Your task to perform on an android device: install app "VLC for Android" Image 0: 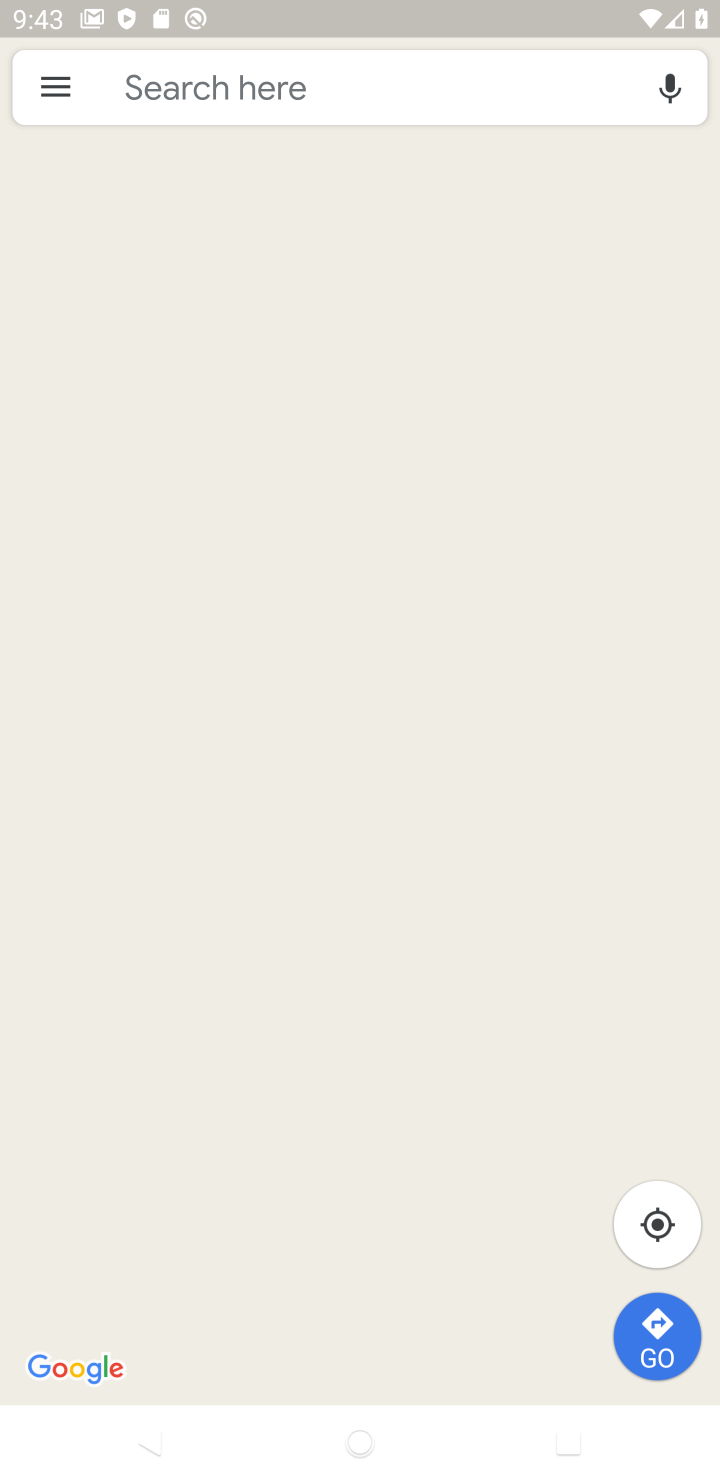
Step 0: press back button
Your task to perform on an android device: install app "VLC for Android" Image 1: 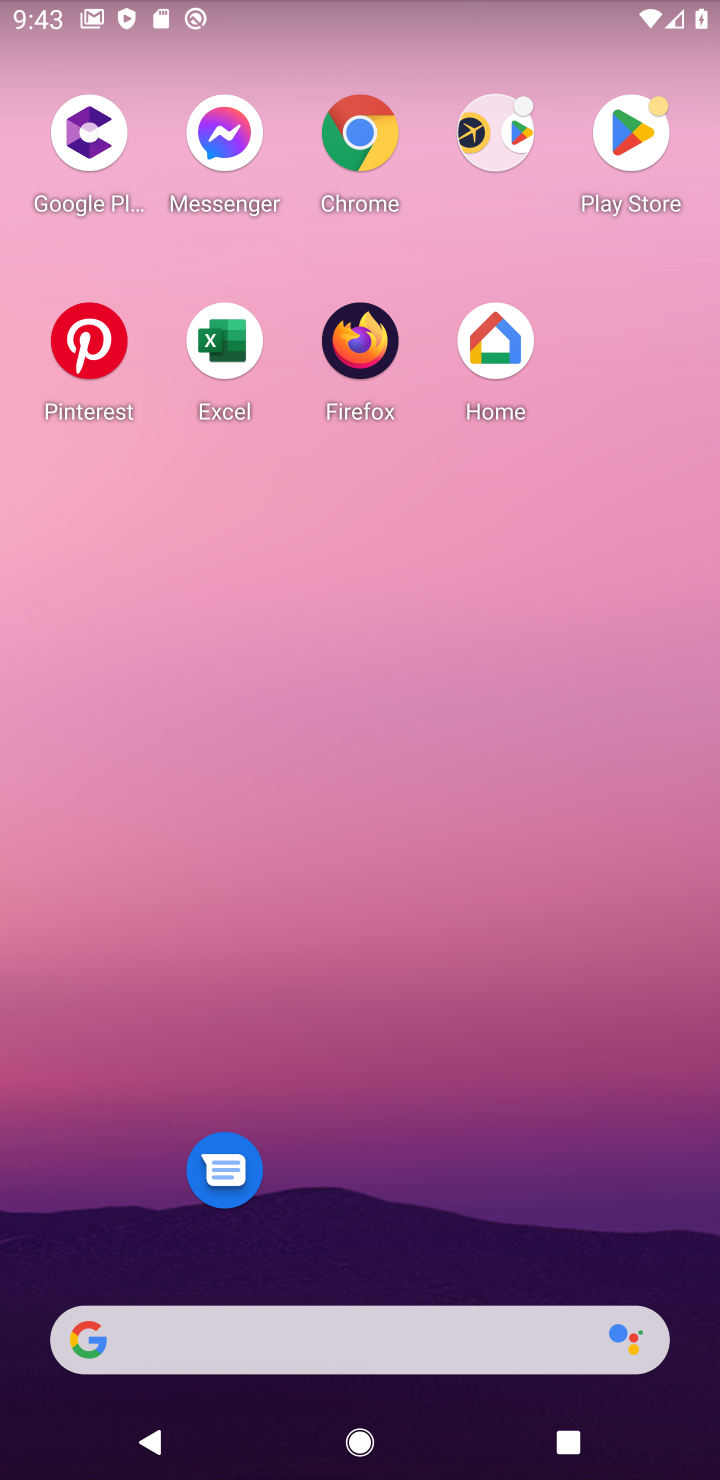
Step 1: press home button
Your task to perform on an android device: install app "VLC for Android" Image 2: 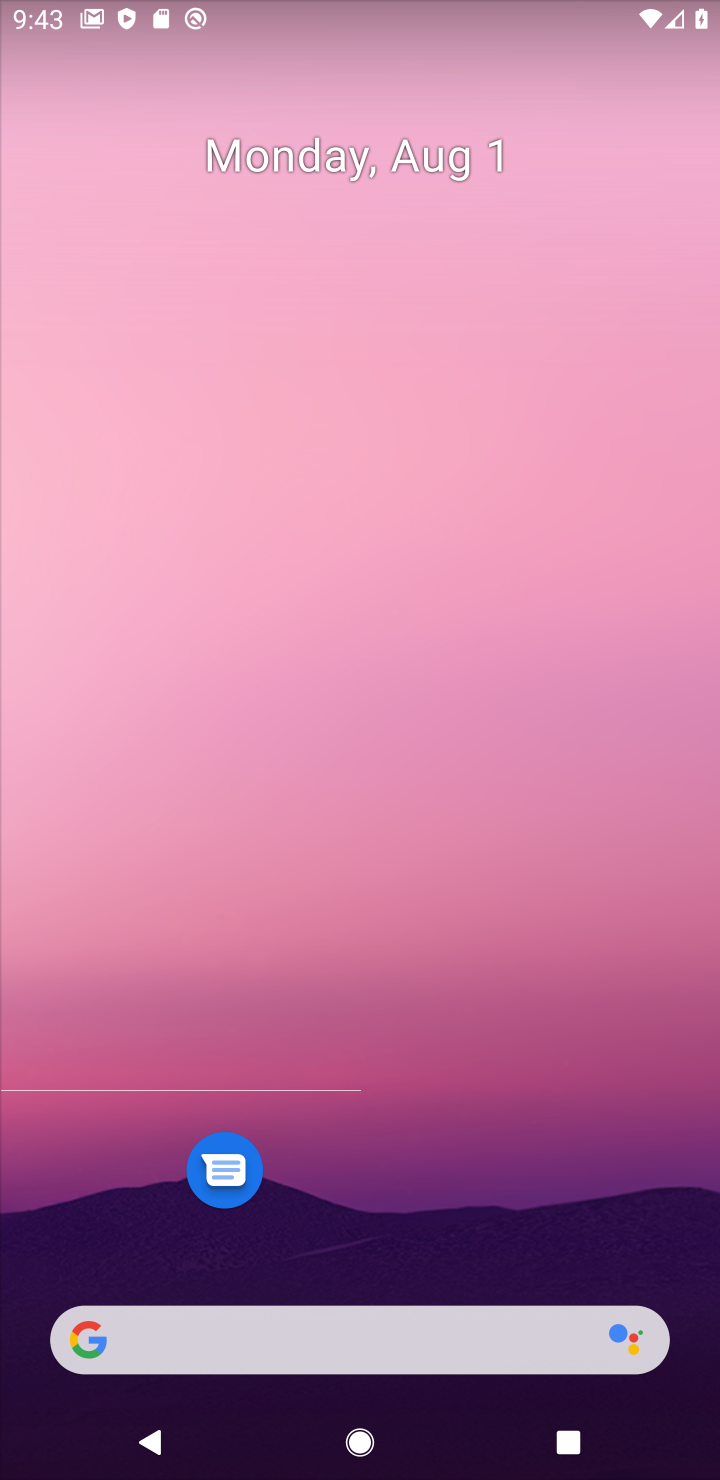
Step 2: drag from (395, 856) to (325, 611)
Your task to perform on an android device: install app "VLC for Android" Image 3: 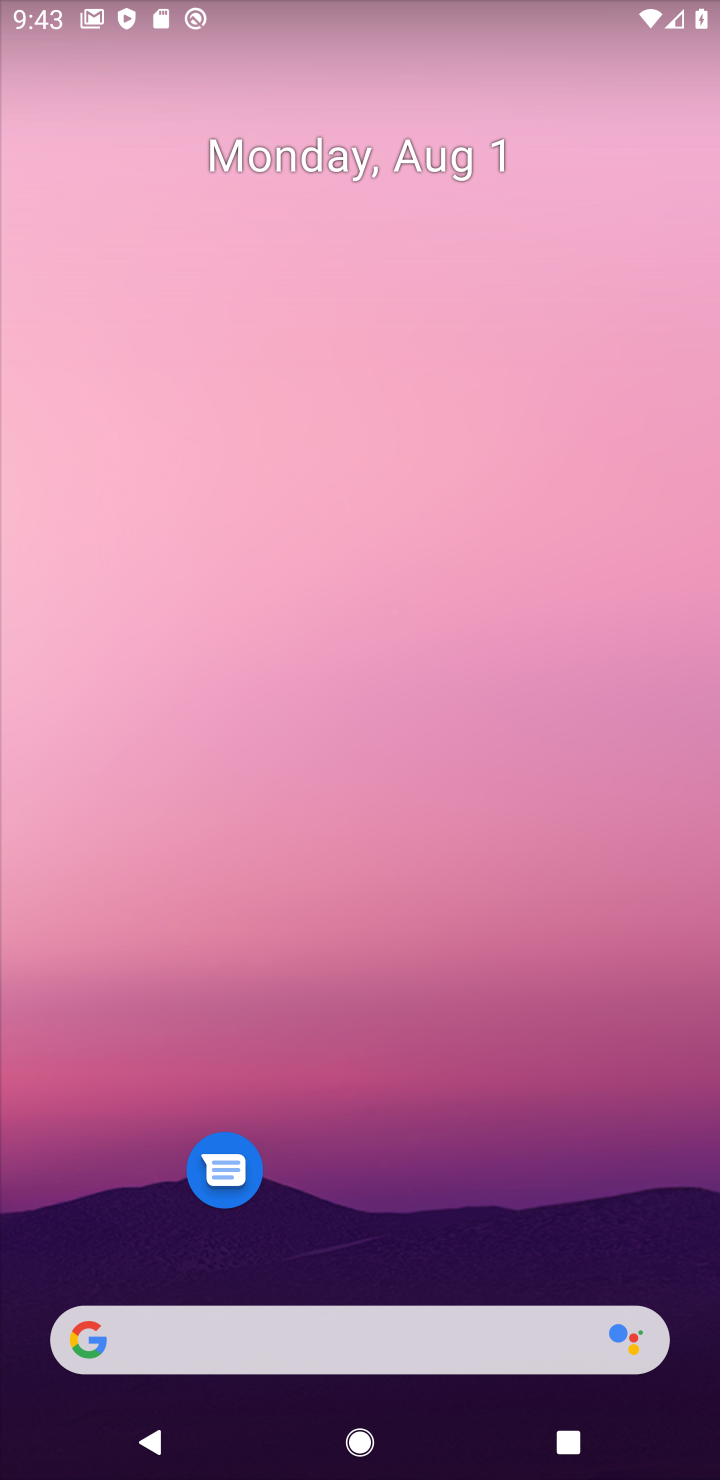
Step 3: click (304, 197)
Your task to perform on an android device: install app "VLC for Android" Image 4: 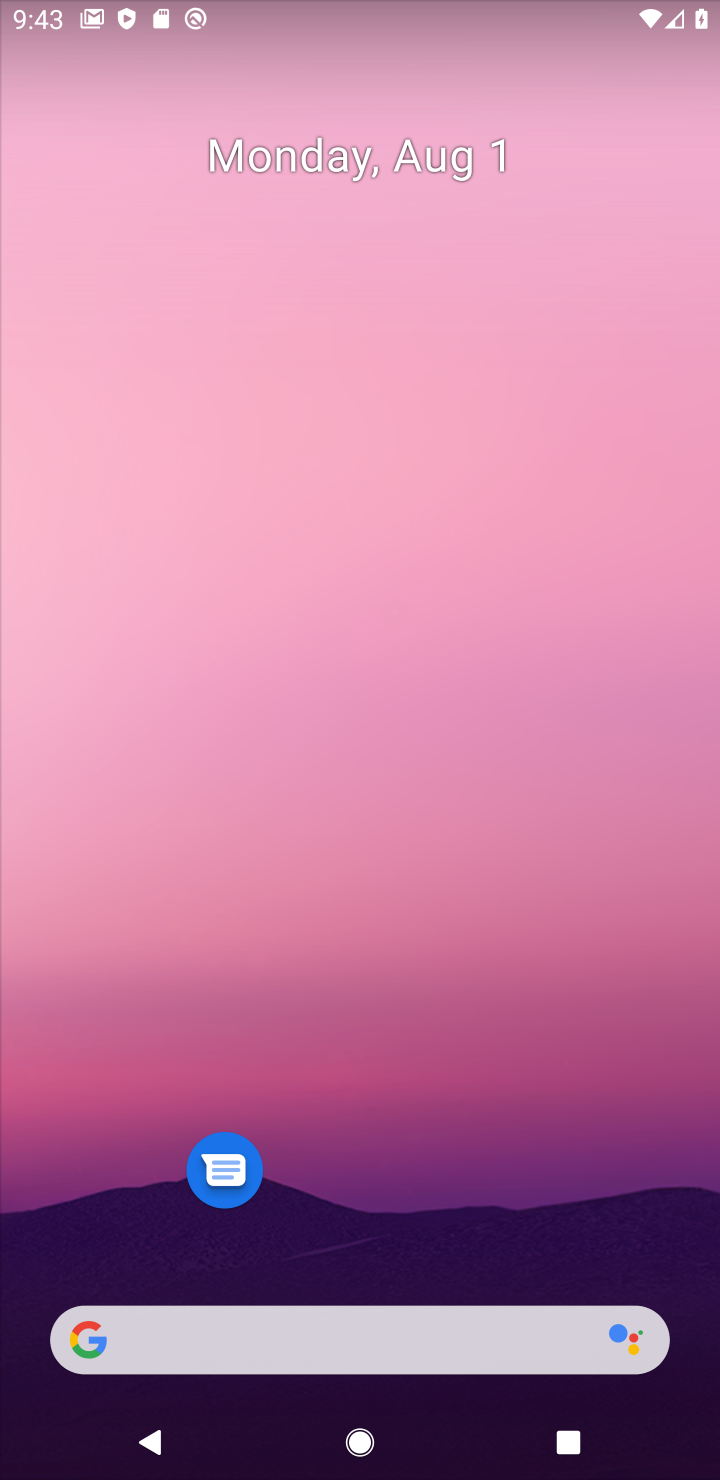
Step 4: drag from (384, 351) to (437, 817)
Your task to perform on an android device: install app "VLC for Android" Image 5: 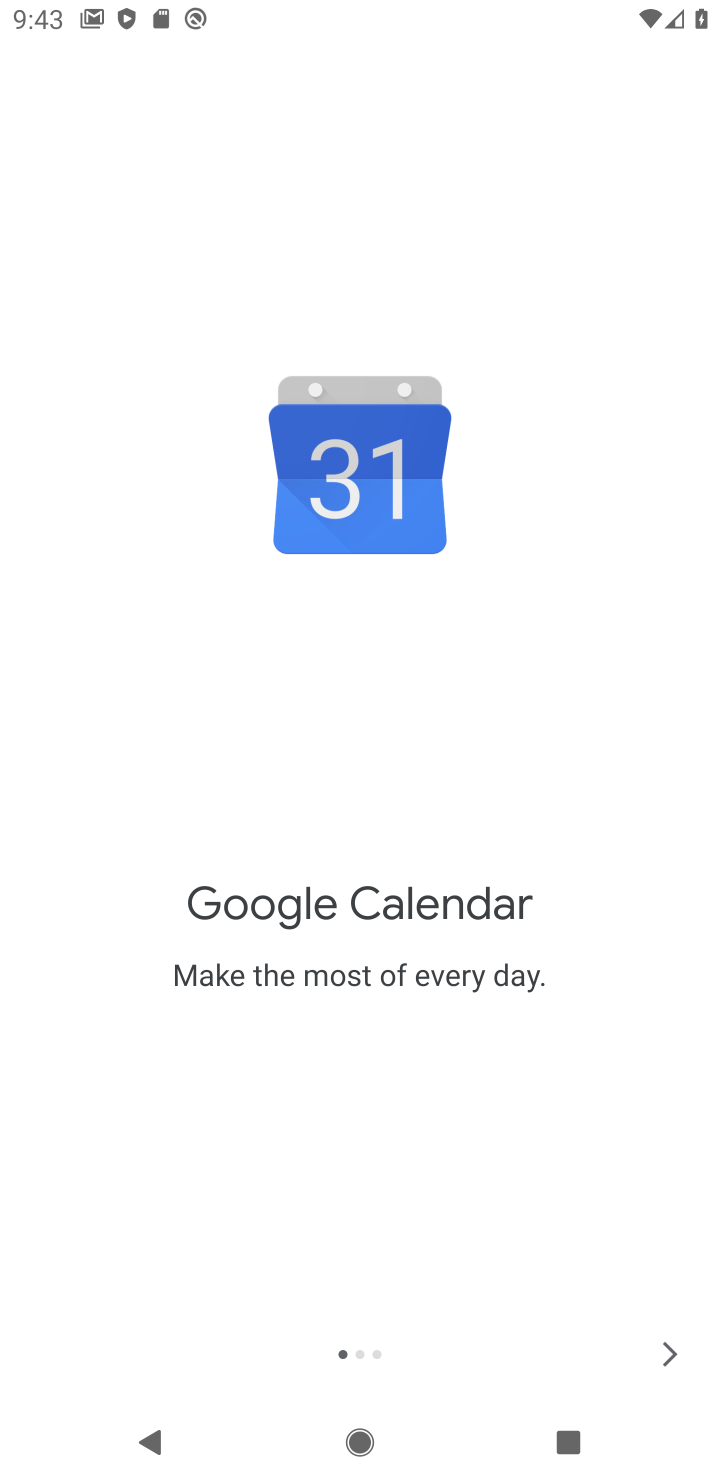
Step 5: press back button
Your task to perform on an android device: install app "VLC for Android" Image 6: 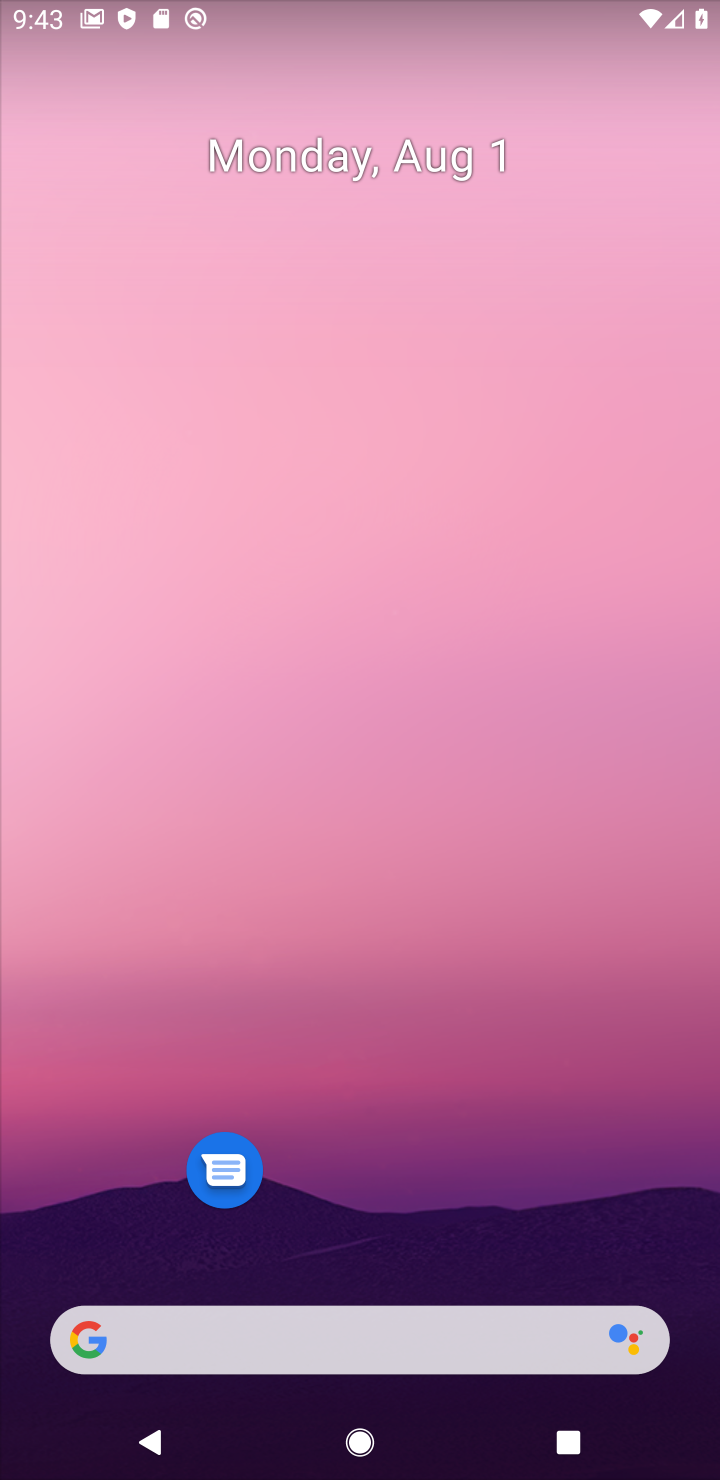
Step 6: drag from (330, 593) to (221, 142)
Your task to perform on an android device: install app "VLC for Android" Image 7: 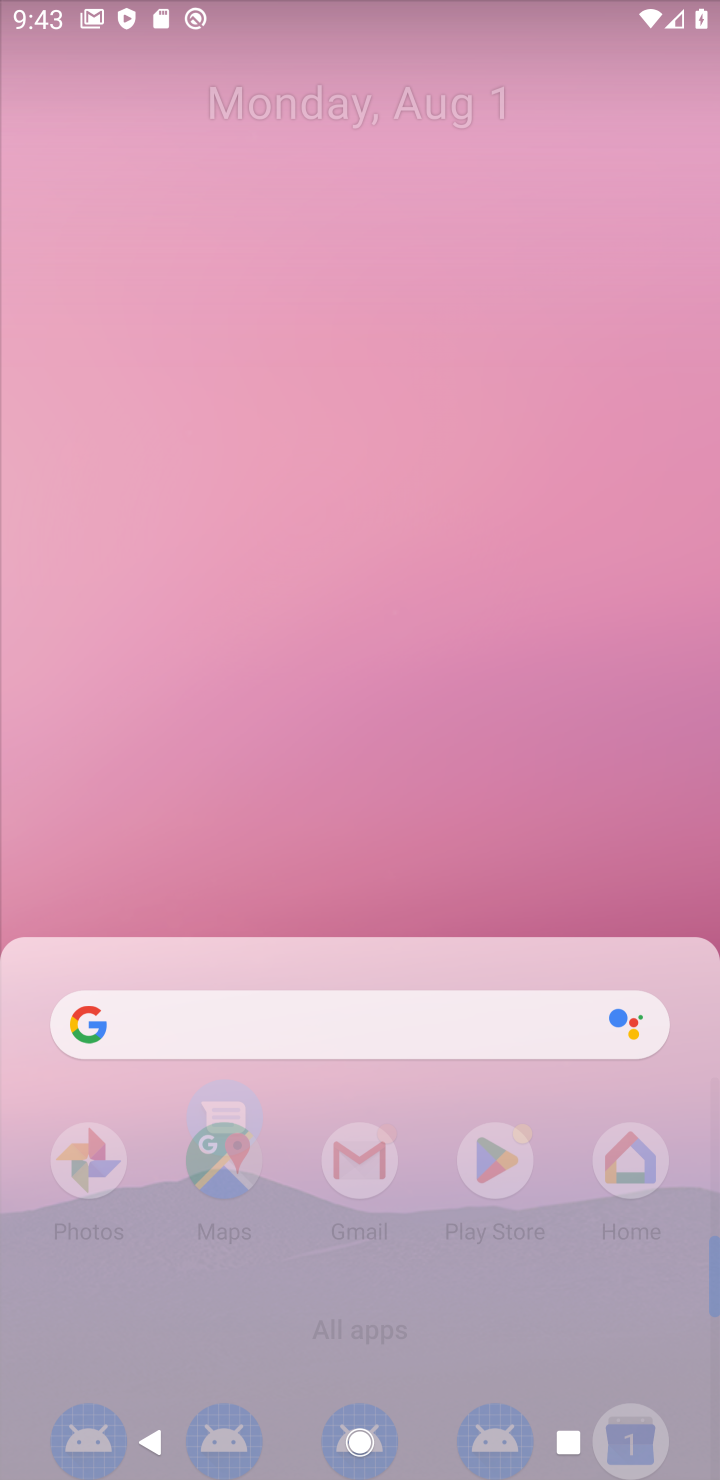
Step 7: drag from (225, 55) to (383, 142)
Your task to perform on an android device: install app "VLC for Android" Image 8: 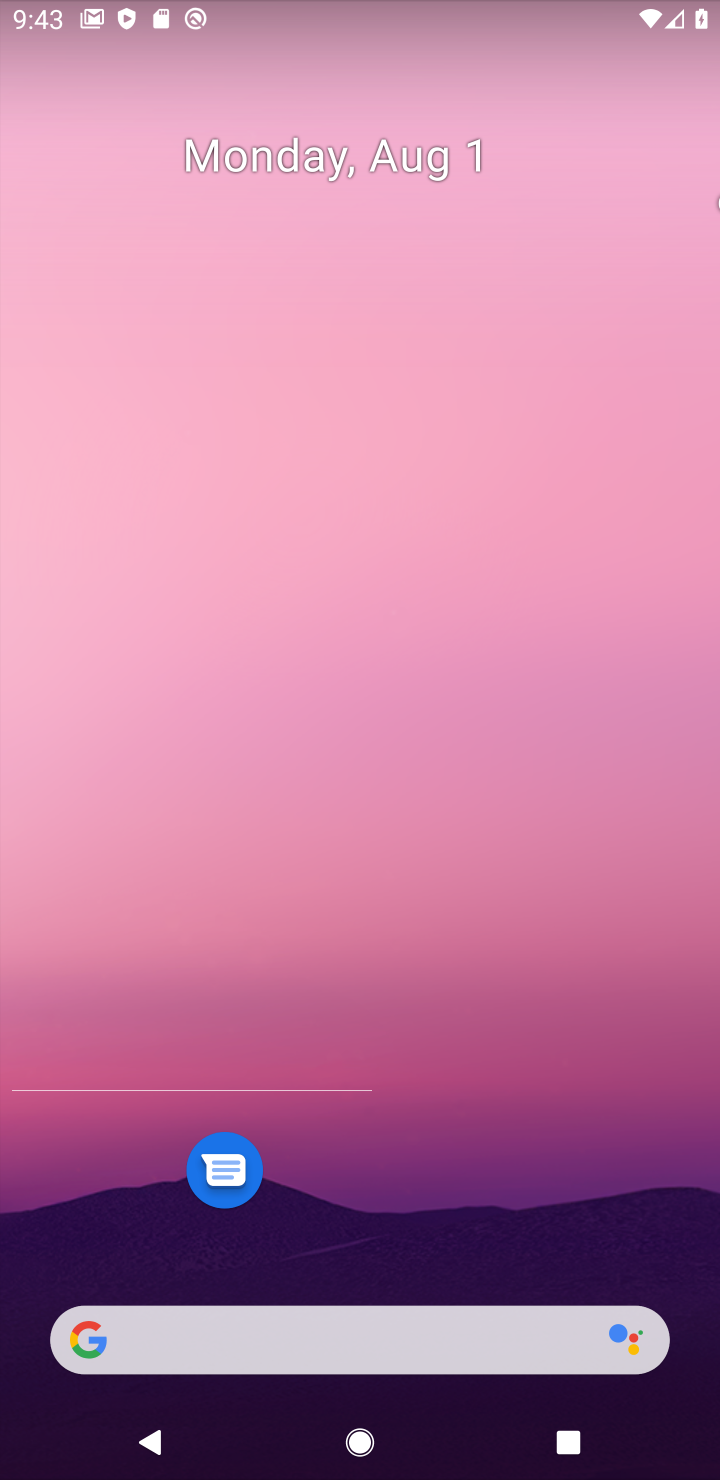
Step 8: drag from (206, 159) to (273, 212)
Your task to perform on an android device: install app "VLC for Android" Image 9: 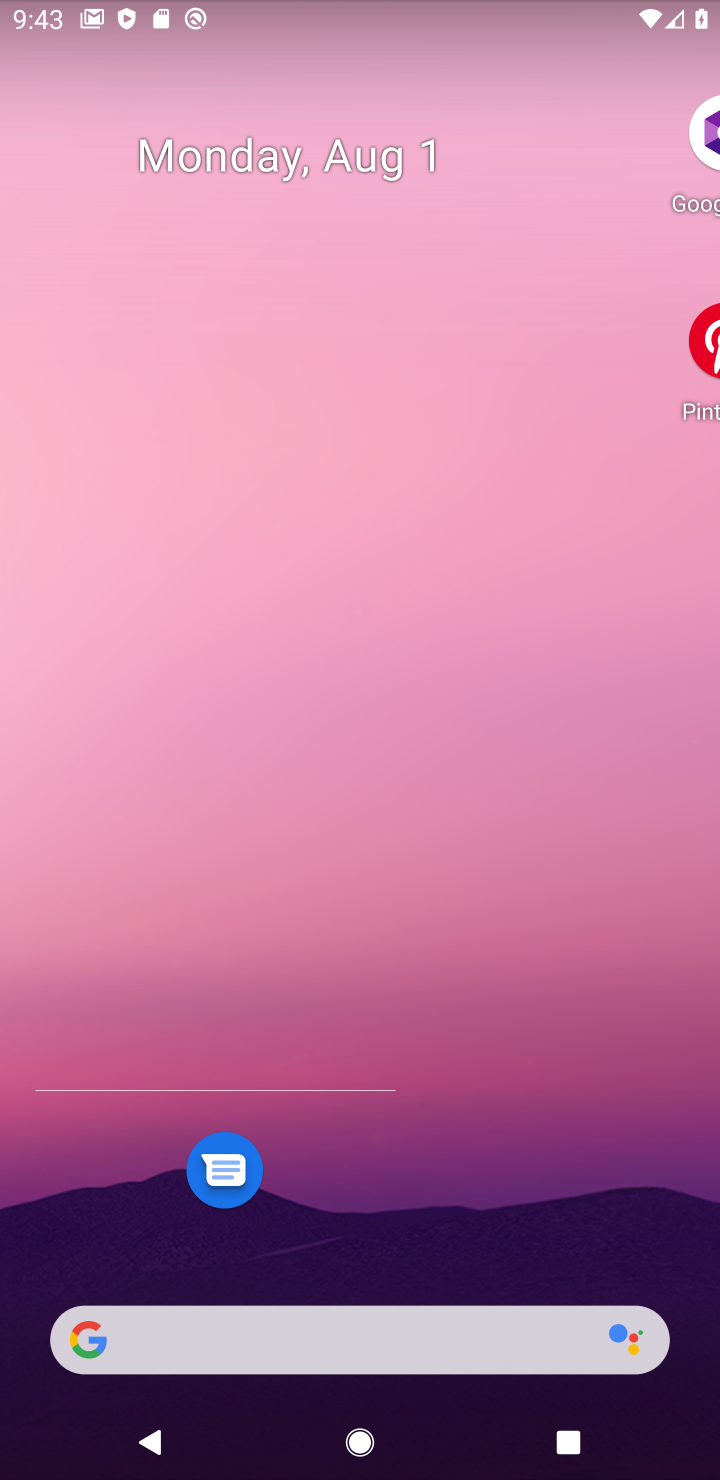
Step 9: drag from (310, 494) to (470, 147)
Your task to perform on an android device: install app "VLC for Android" Image 10: 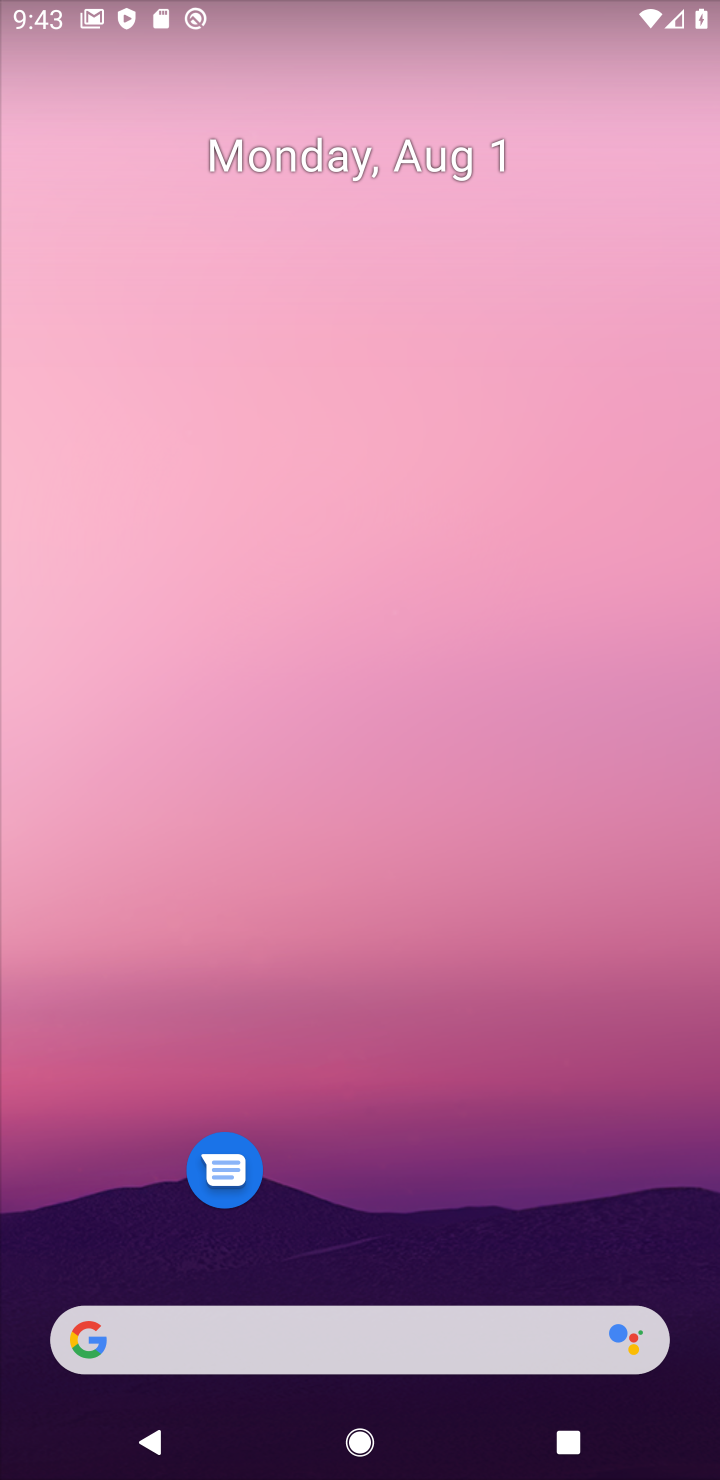
Step 10: click (267, 445)
Your task to perform on an android device: install app "VLC for Android" Image 11: 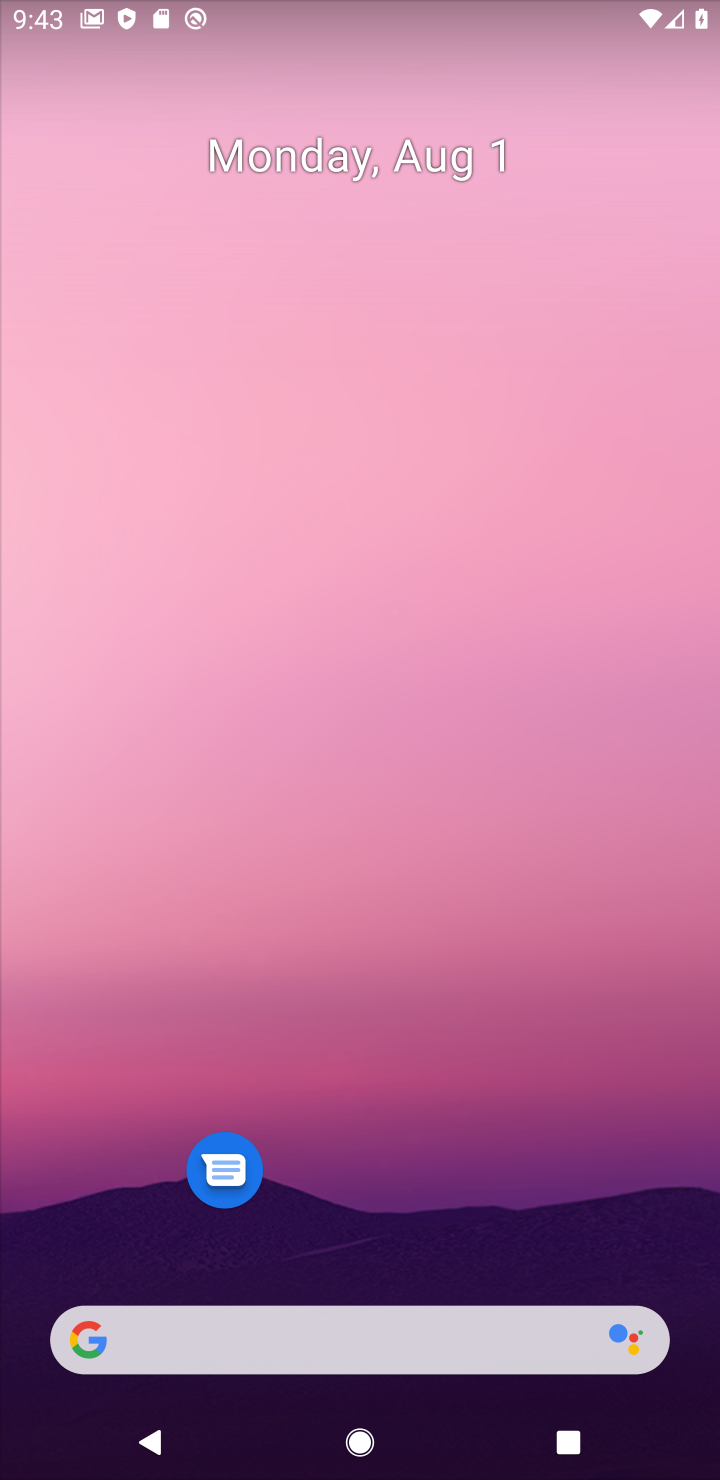
Step 11: drag from (423, 687) to (458, 603)
Your task to perform on an android device: install app "VLC for Android" Image 12: 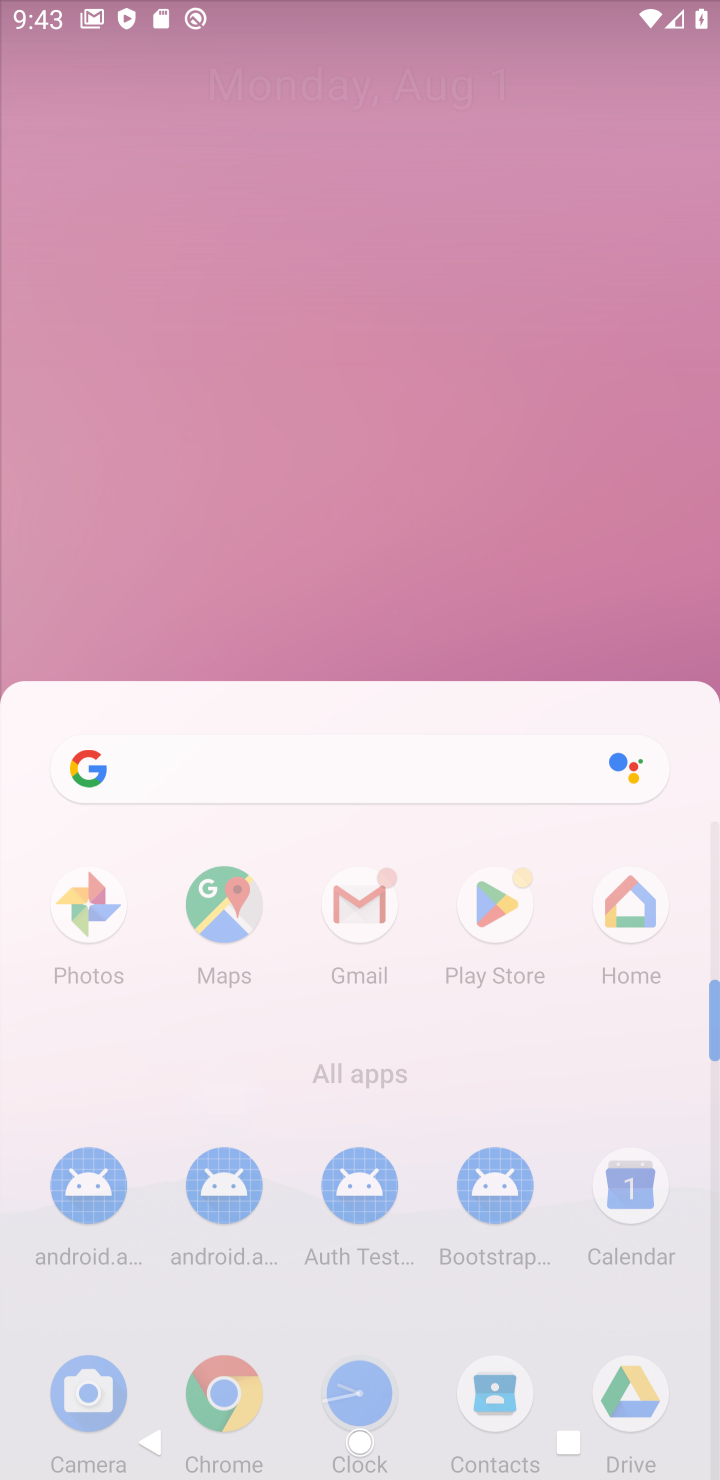
Step 12: drag from (460, 975) to (294, 346)
Your task to perform on an android device: install app "VLC for Android" Image 13: 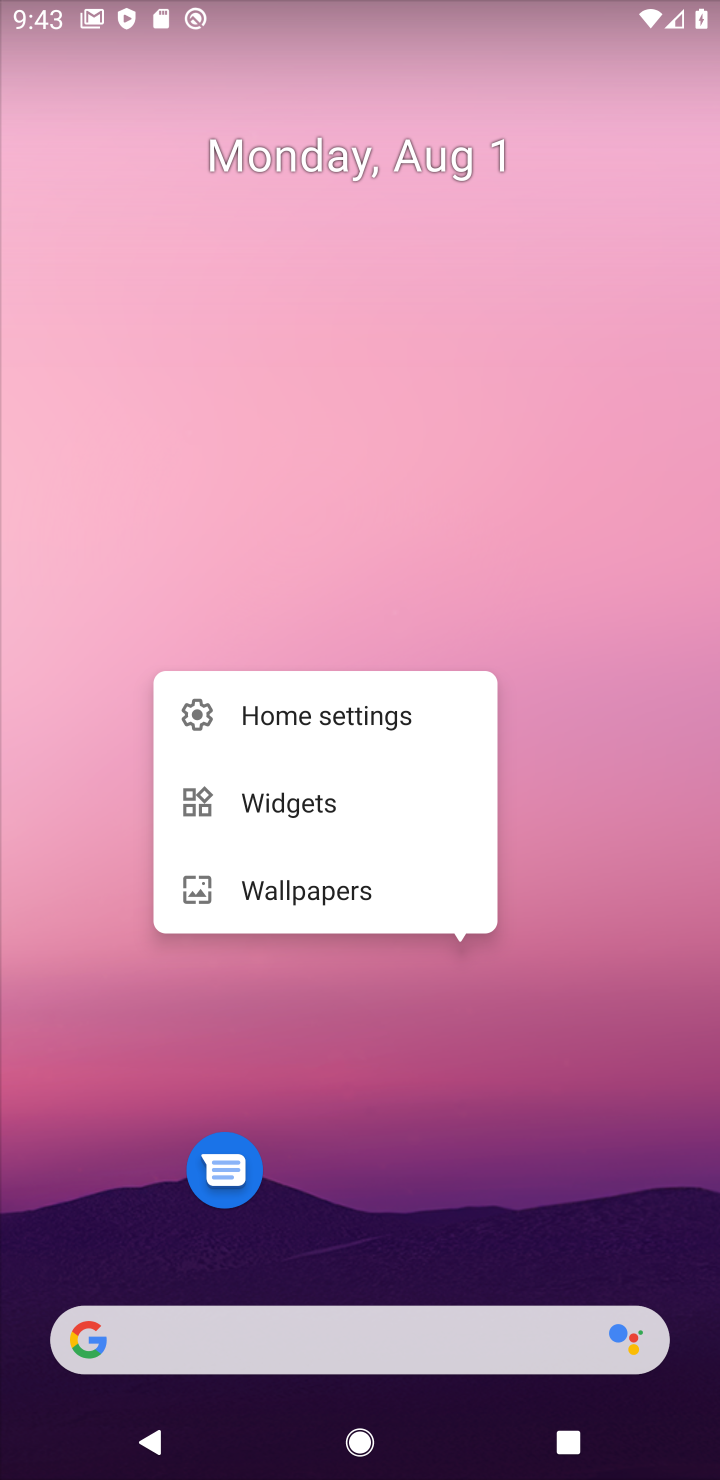
Step 13: drag from (334, 741) to (326, 228)
Your task to perform on an android device: install app "VLC for Android" Image 14: 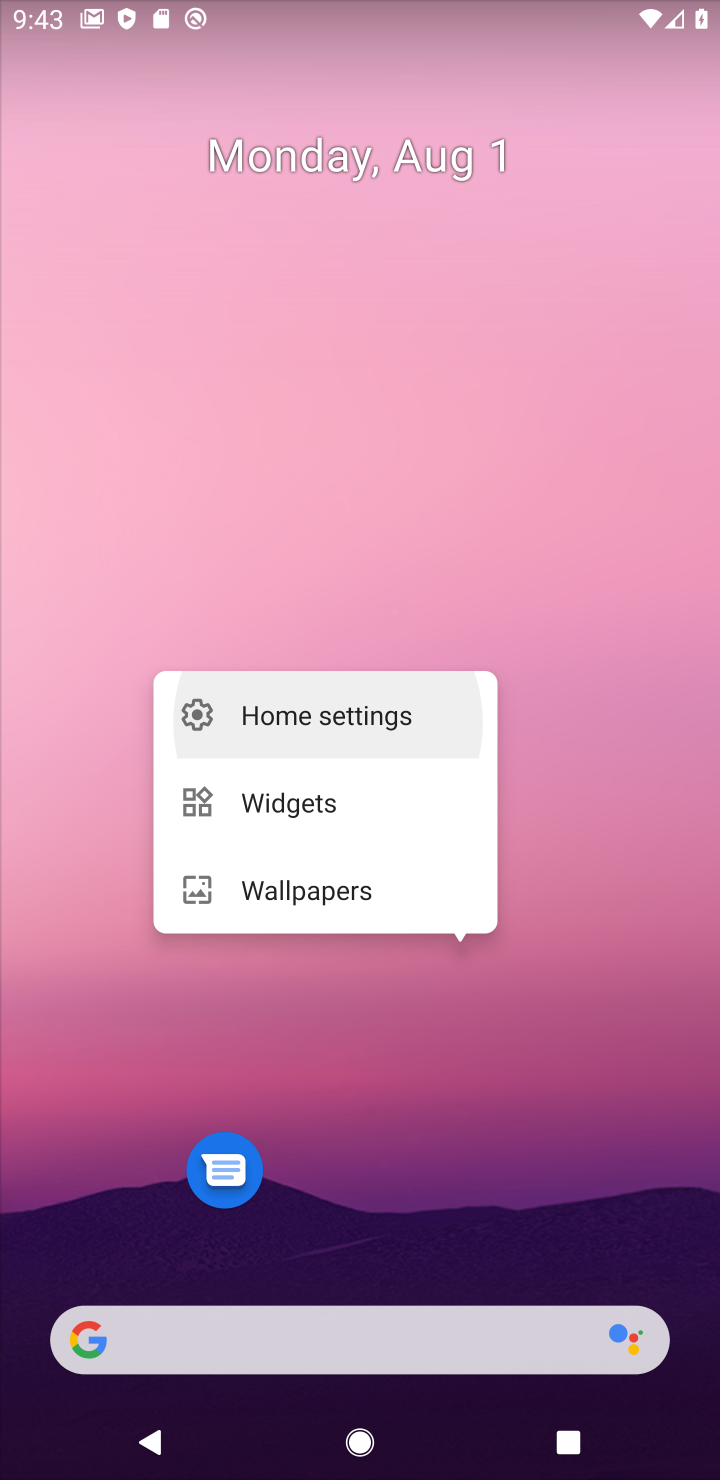
Step 14: click (423, 32)
Your task to perform on an android device: install app "VLC for Android" Image 15: 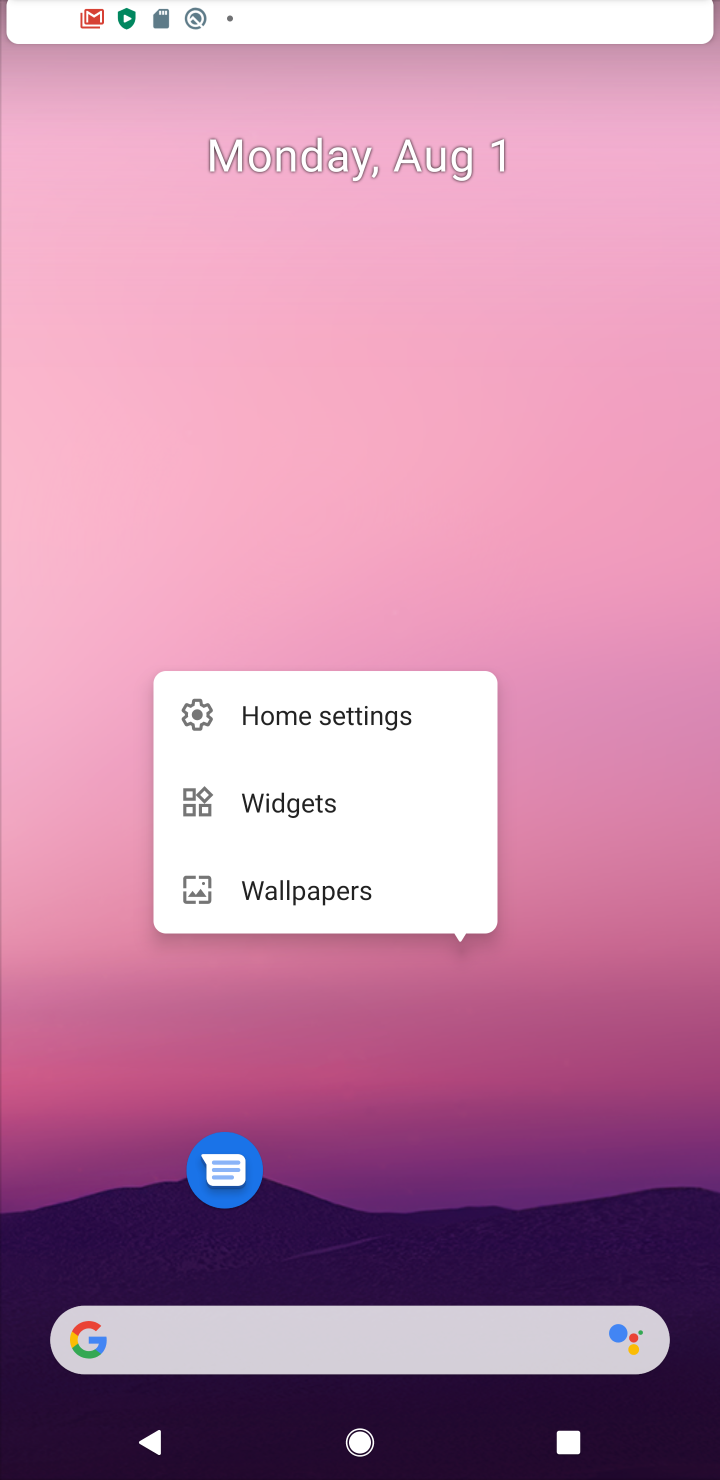
Step 15: drag from (297, 173) to (310, 238)
Your task to perform on an android device: install app "VLC for Android" Image 16: 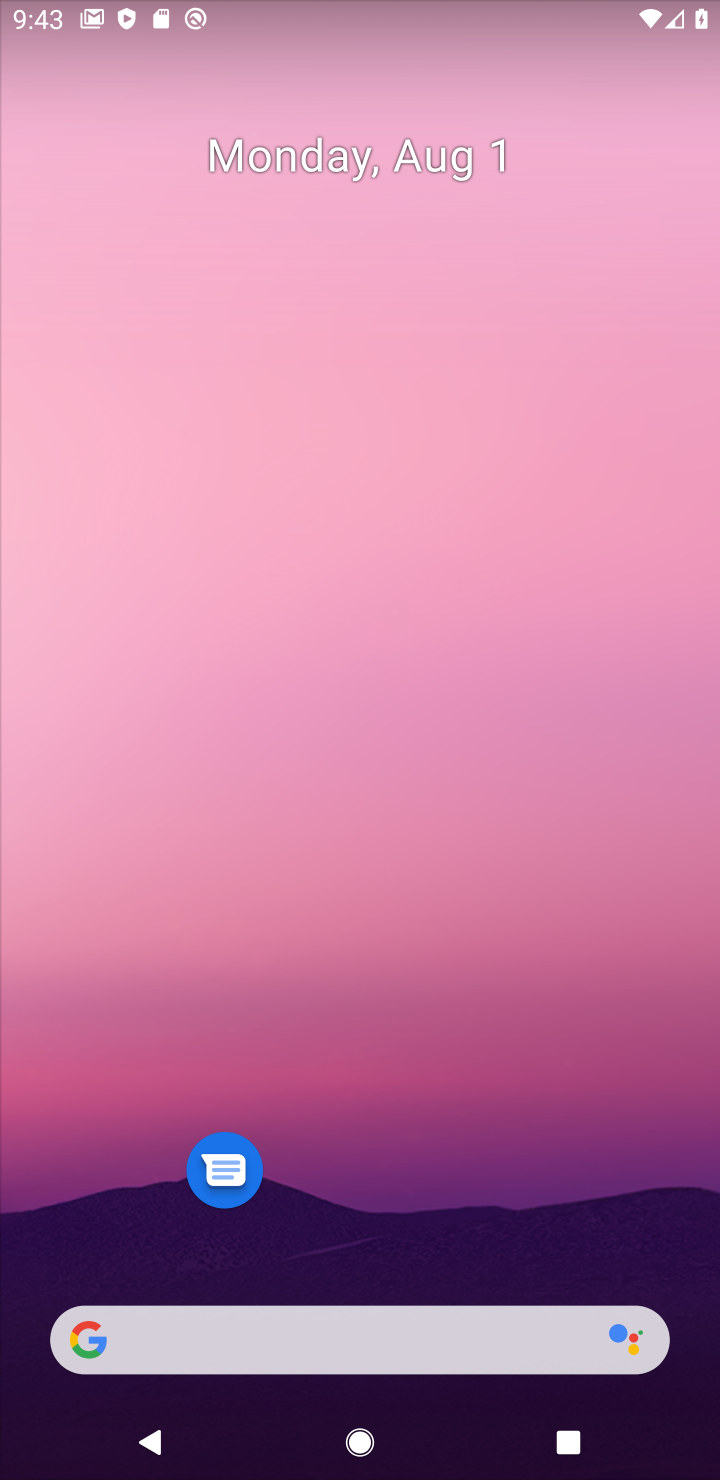
Step 16: drag from (298, 358) to (467, 207)
Your task to perform on an android device: install app "VLC for Android" Image 17: 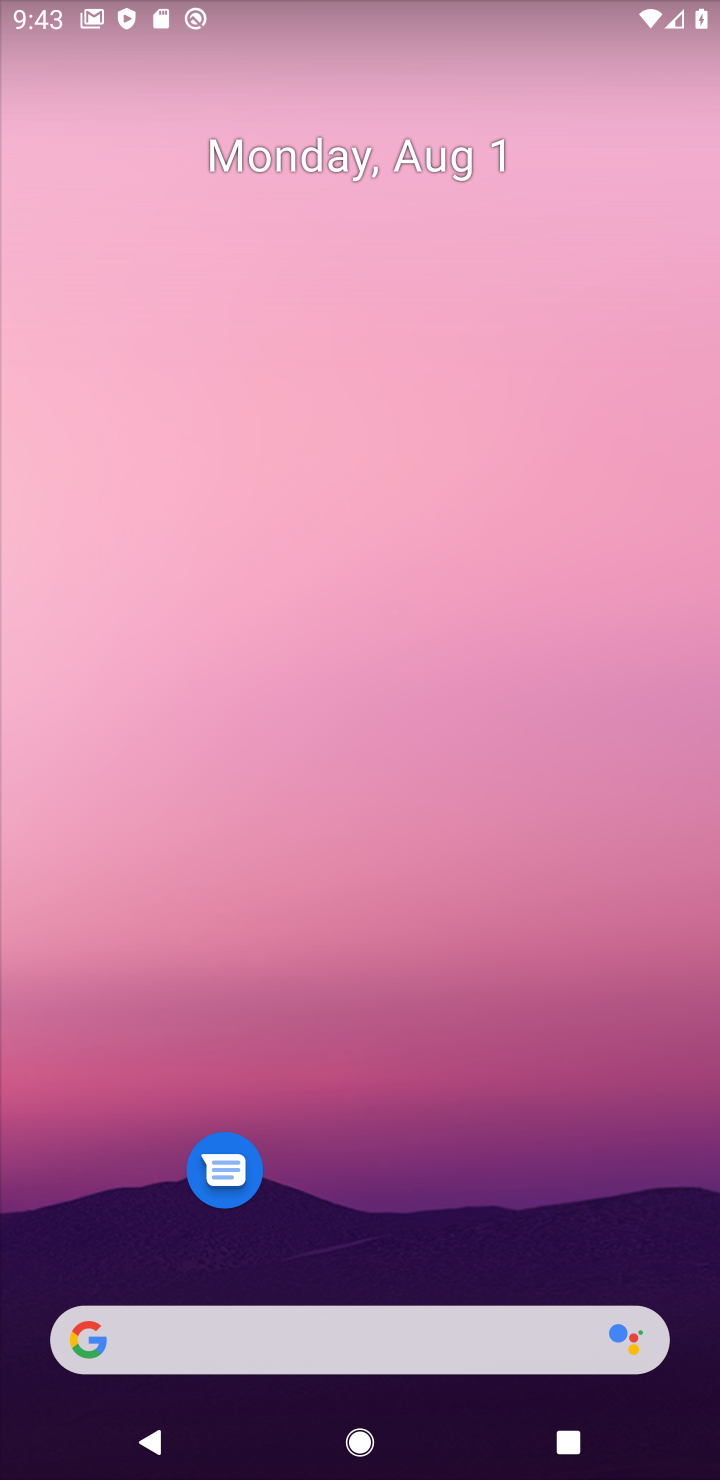
Step 17: drag from (356, 915) to (522, 140)
Your task to perform on an android device: install app "VLC for Android" Image 18: 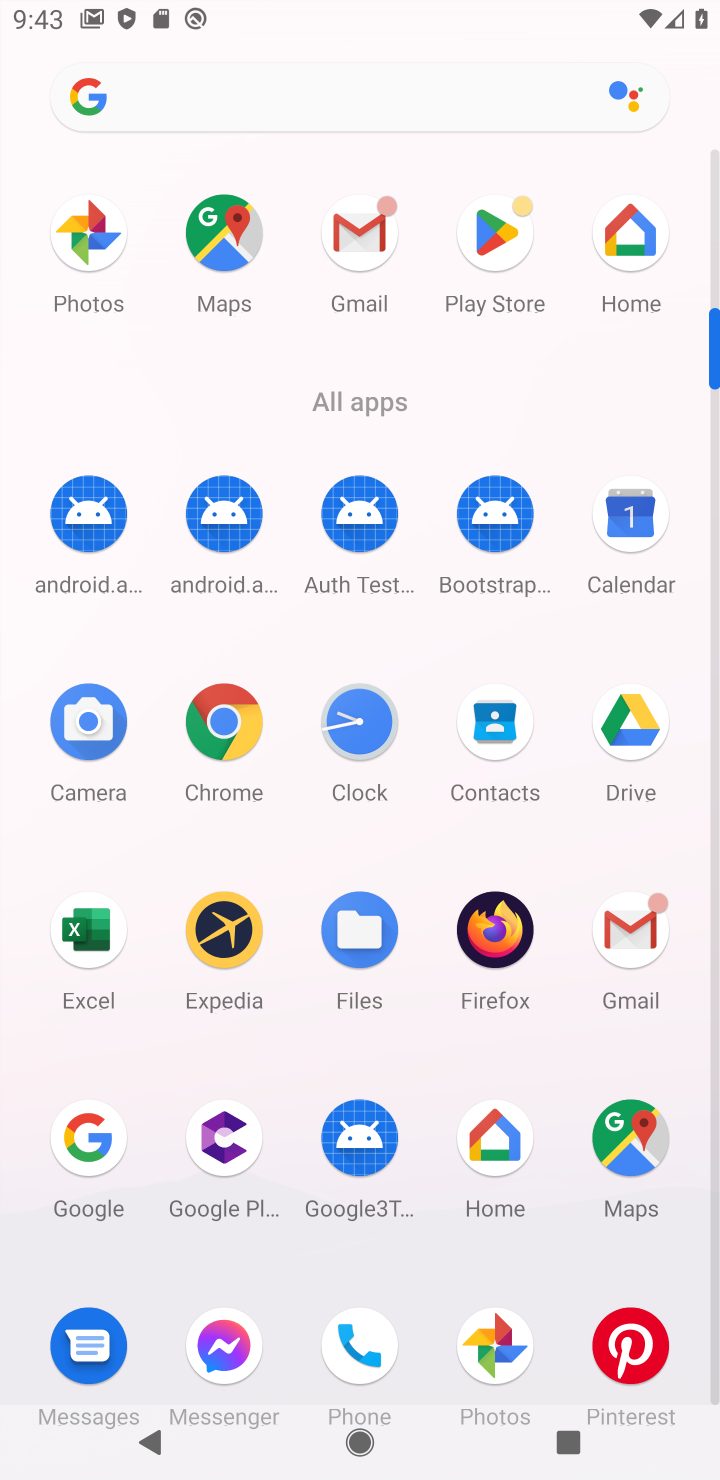
Step 18: click (472, 227)
Your task to perform on an android device: install app "VLC for Android" Image 19: 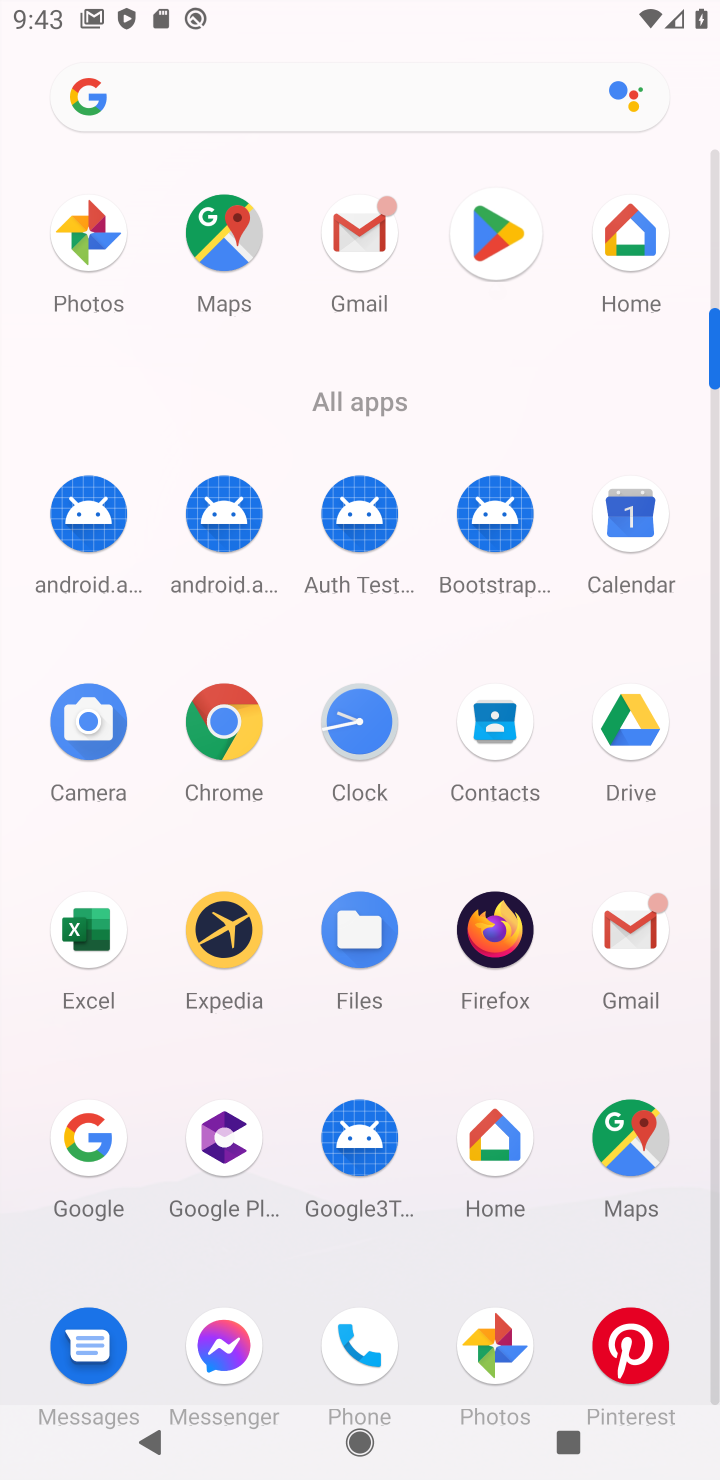
Step 19: click (493, 246)
Your task to perform on an android device: install app "VLC for Android" Image 20: 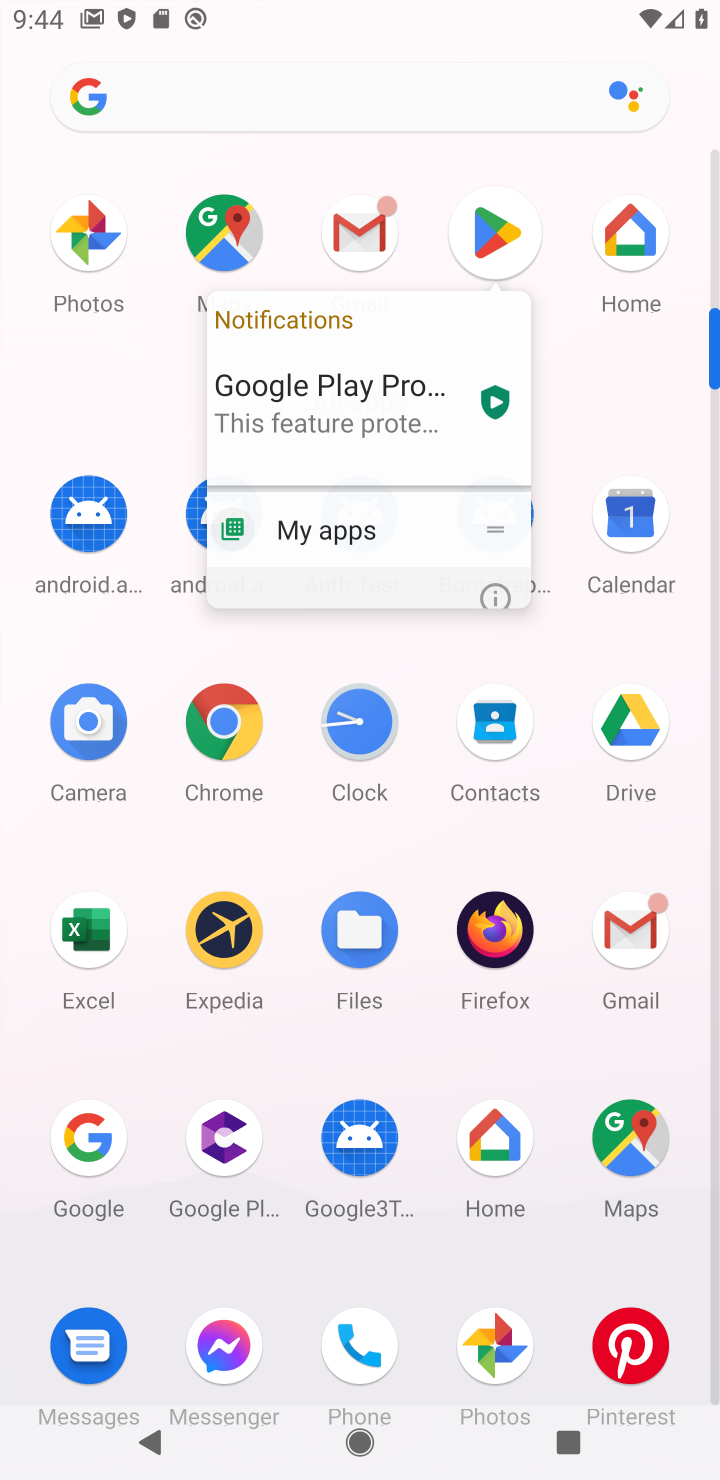
Step 20: click (510, 255)
Your task to perform on an android device: install app "VLC for Android" Image 21: 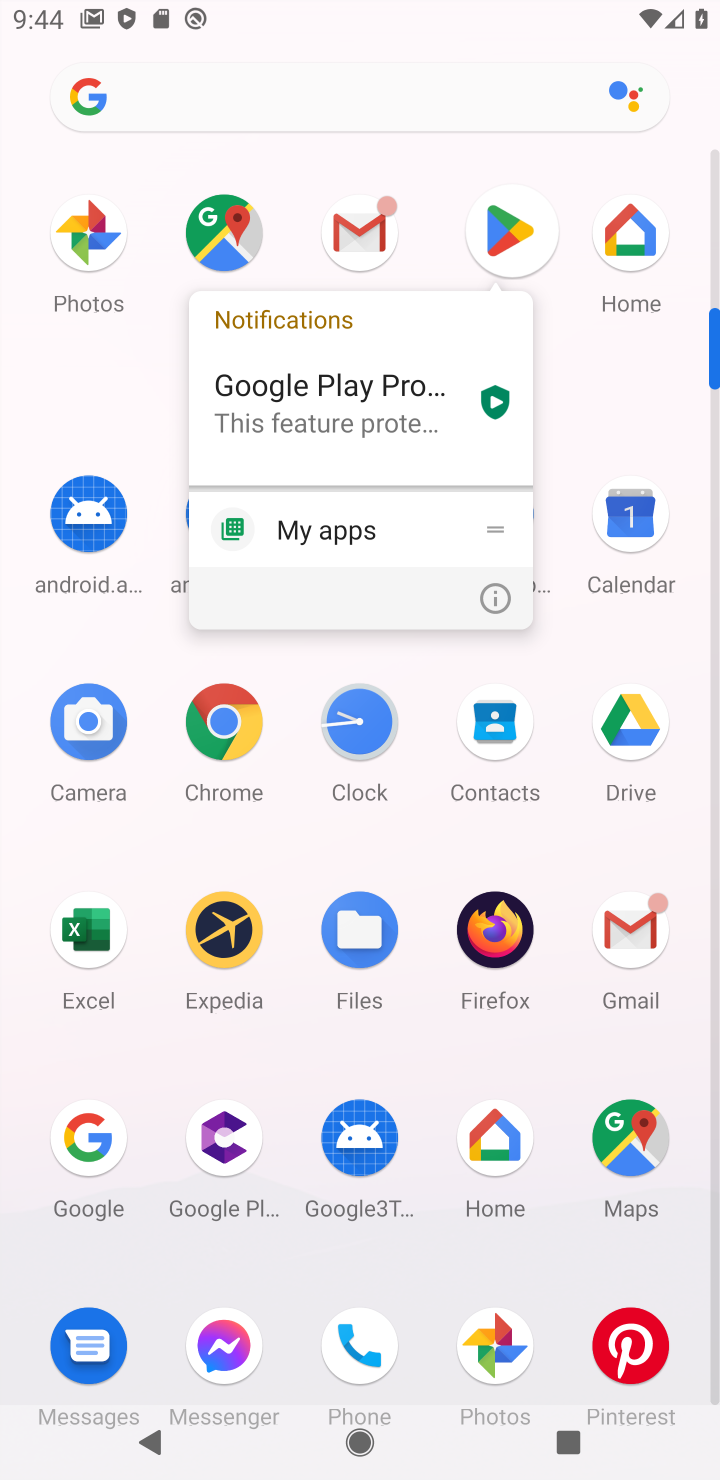
Step 21: click (513, 217)
Your task to perform on an android device: install app "VLC for Android" Image 22: 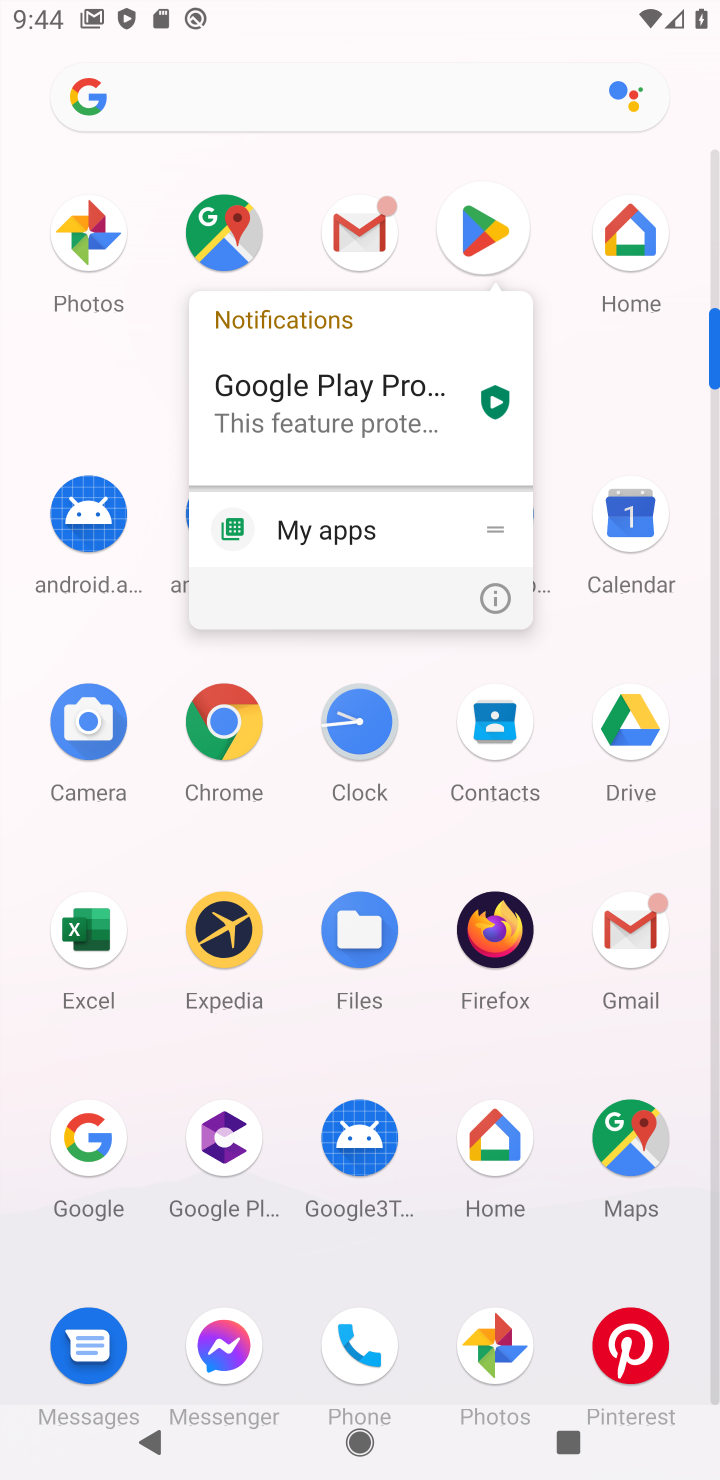
Step 22: click (505, 218)
Your task to perform on an android device: install app "VLC for Android" Image 23: 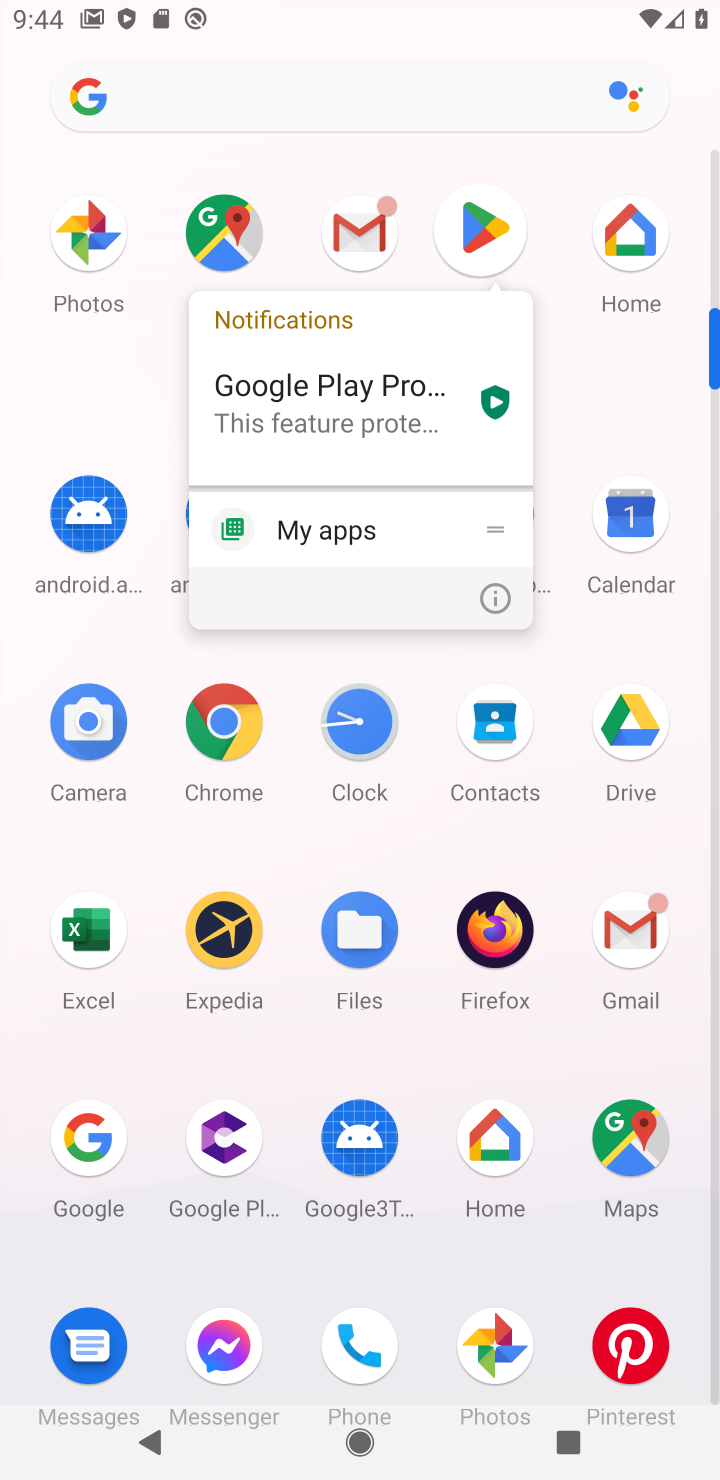
Step 23: click (527, 237)
Your task to perform on an android device: install app "VLC for Android" Image 24: 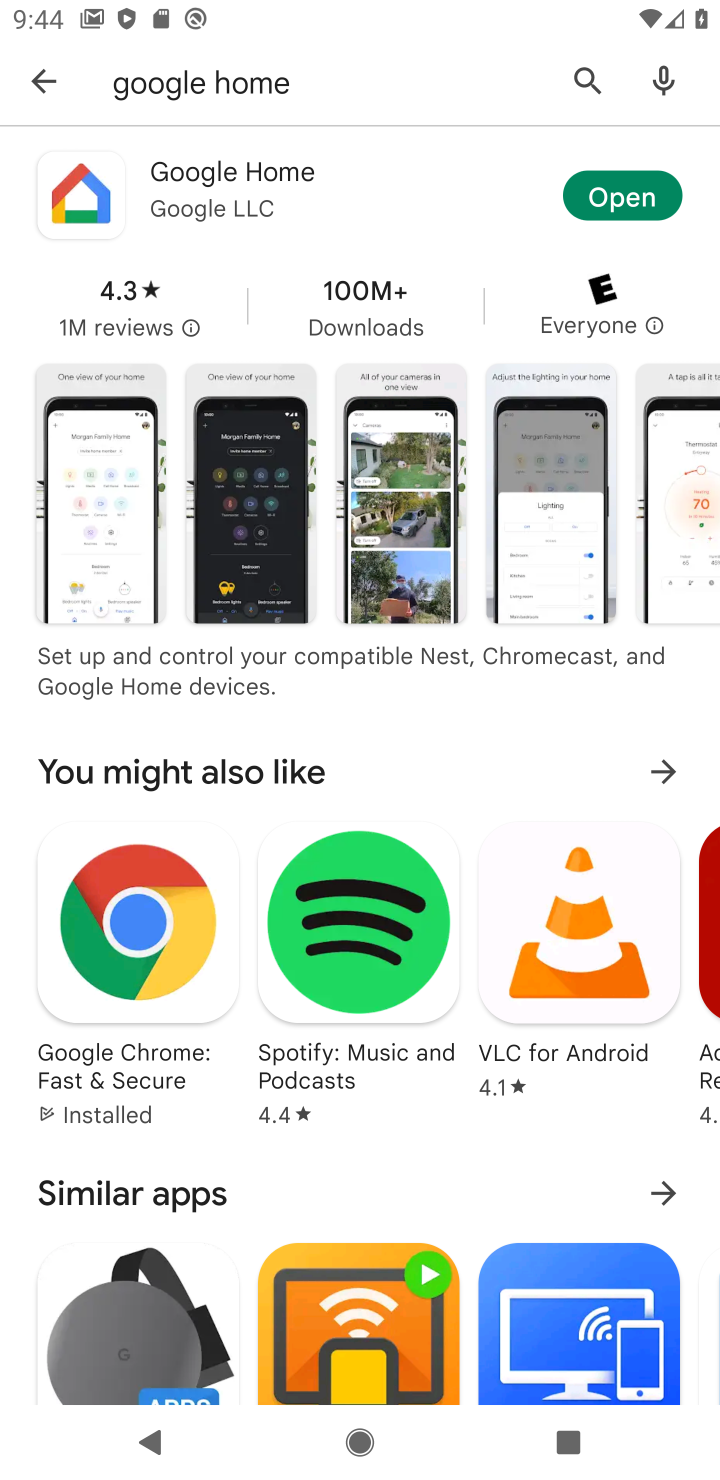
Step 24: click (328, 75)
Your task to perform on an android device: install app "VLC for Android" Image 25: 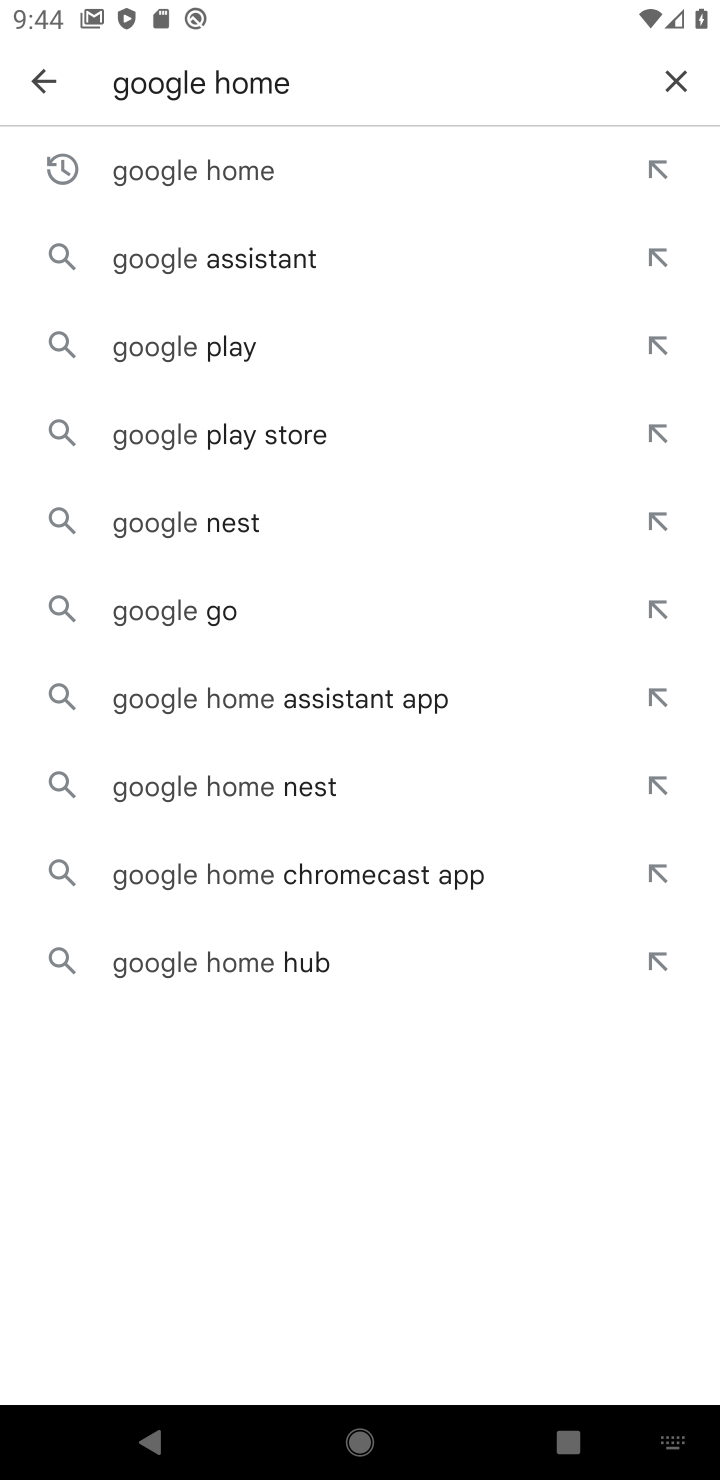
Step 25: click (679, 70)
Your task to perform on an android device: install app "VLC for Android" Image 26: 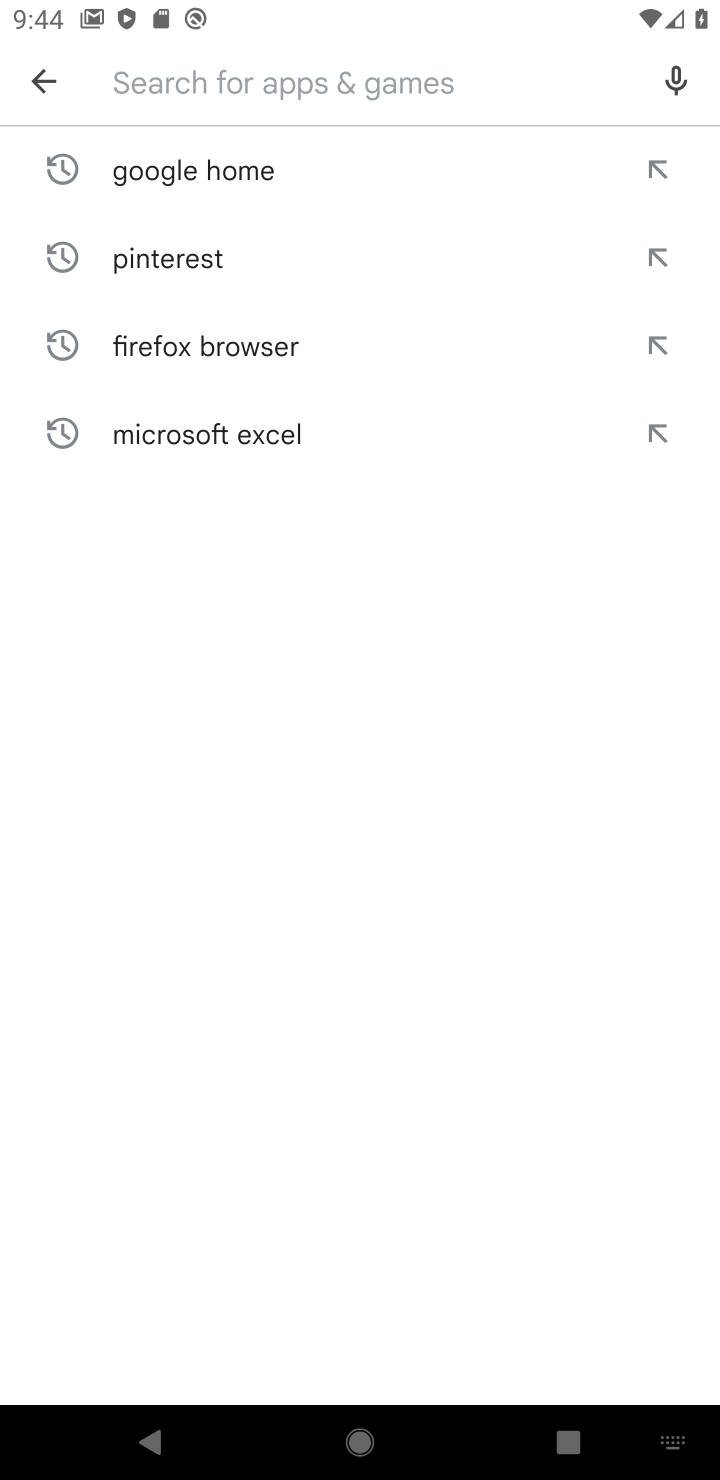
Step 26: type "VLC"
Your task to perform on an android device: install app "VLC for Android" Image 27: 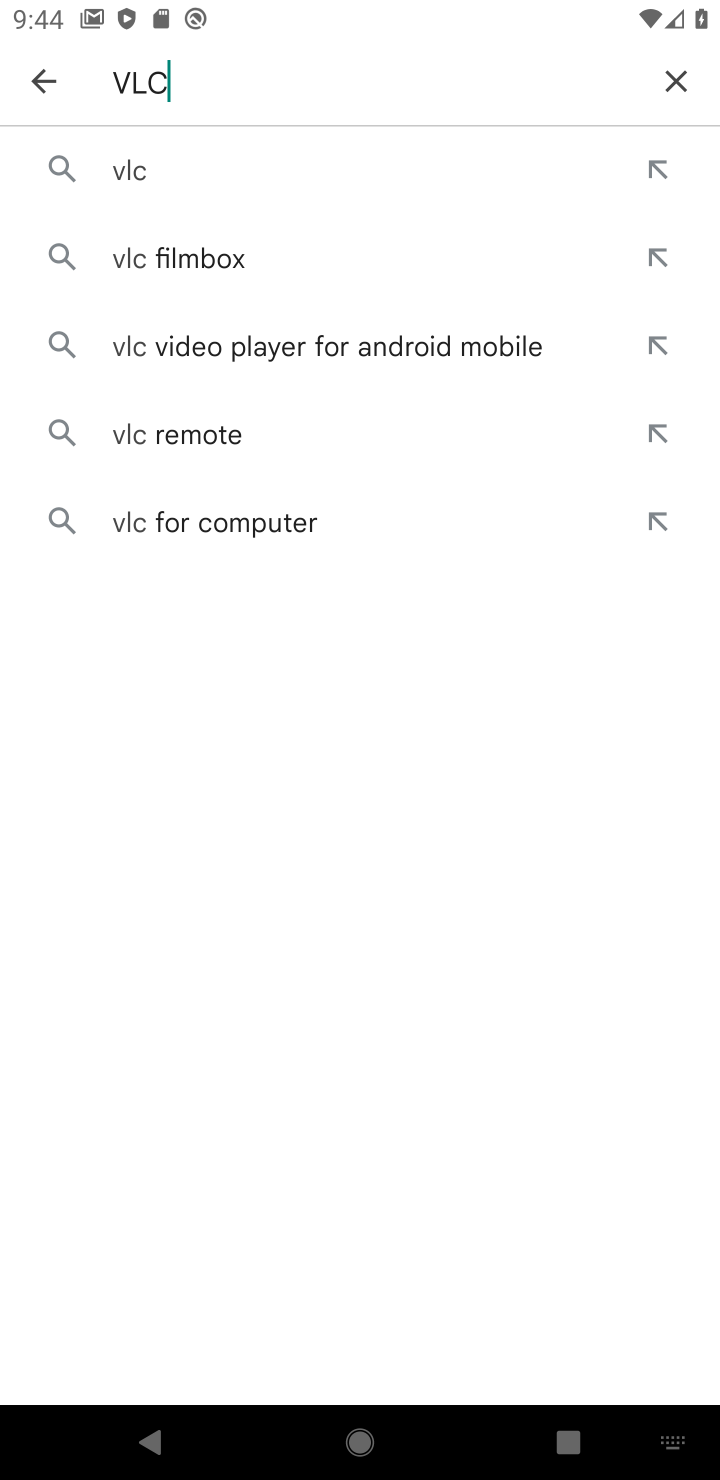
Step 27: click (120, 163)
Your task to perform on an android device: install app "VLC for Android" Image 28: 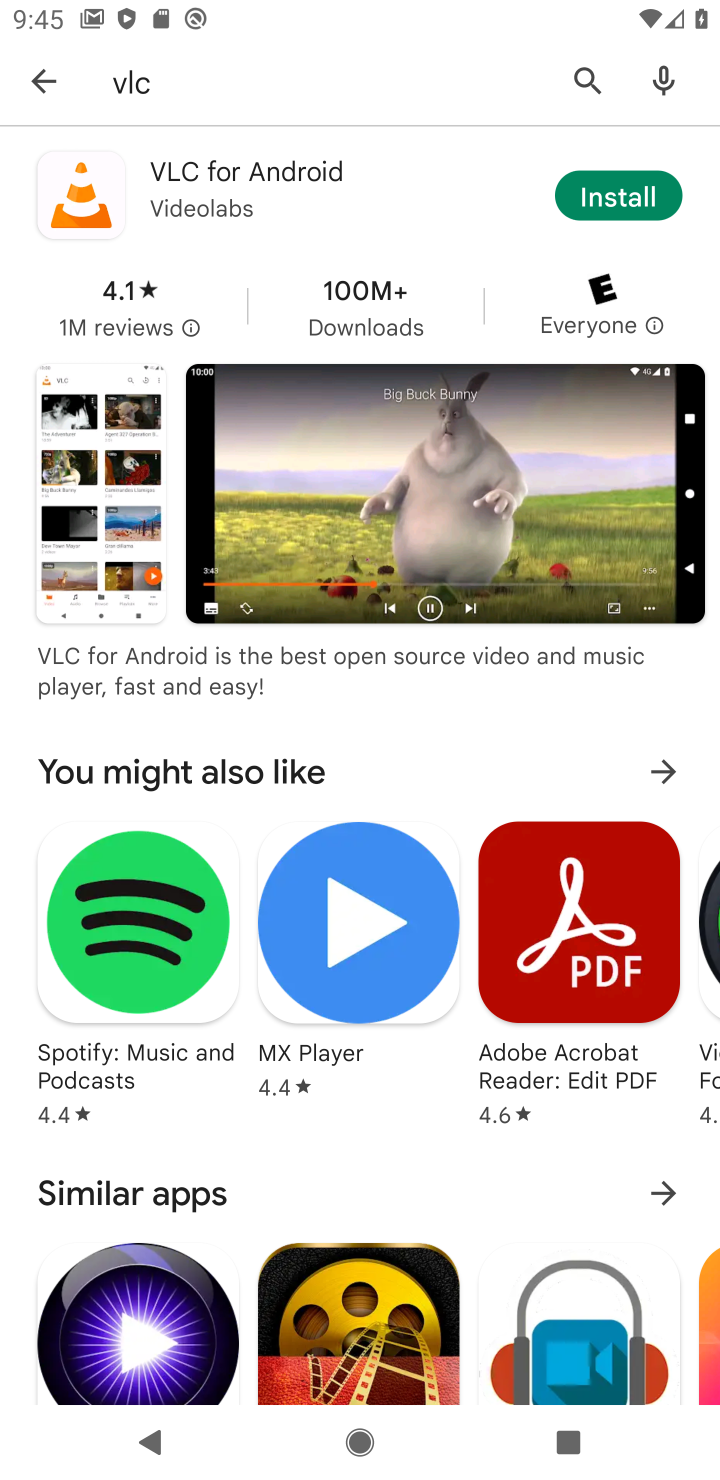
Step 28: click (626, 195)
Your task to perform on an android device: install app "VLC for Android" Image 29: 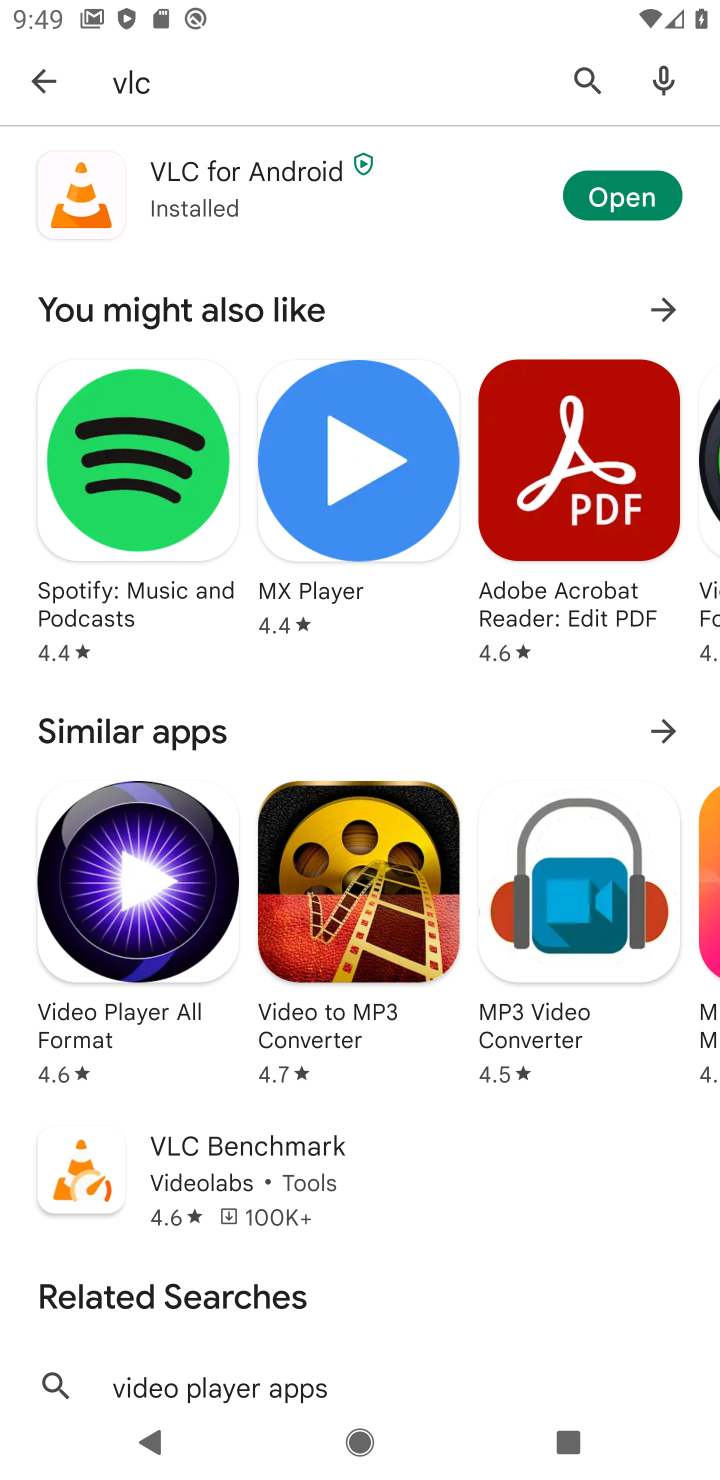
Step 29: click (661, 191)
Your task to perform on an android device: install app "VLC for Android" Image 30: 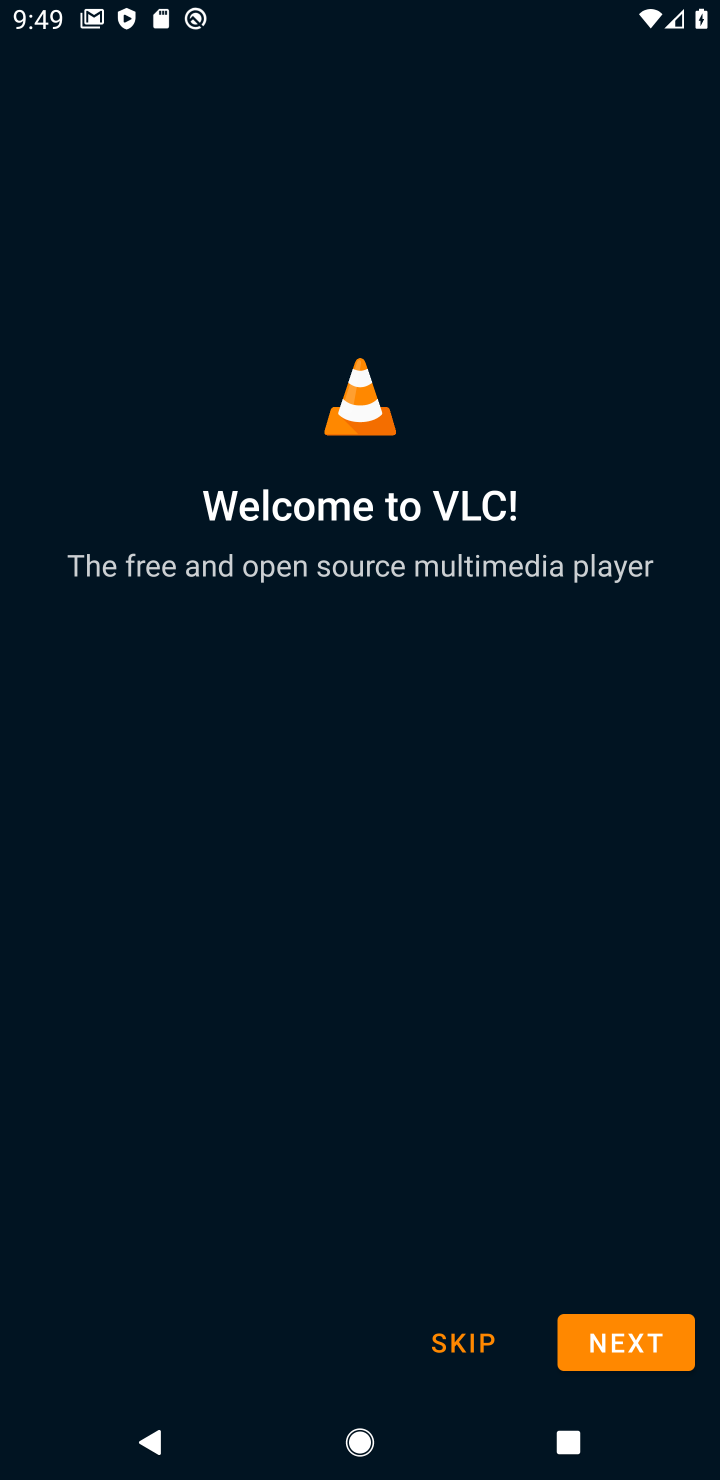
Step 30: task complete